Your task to perform on an android device: Go to notification settings Image 0: 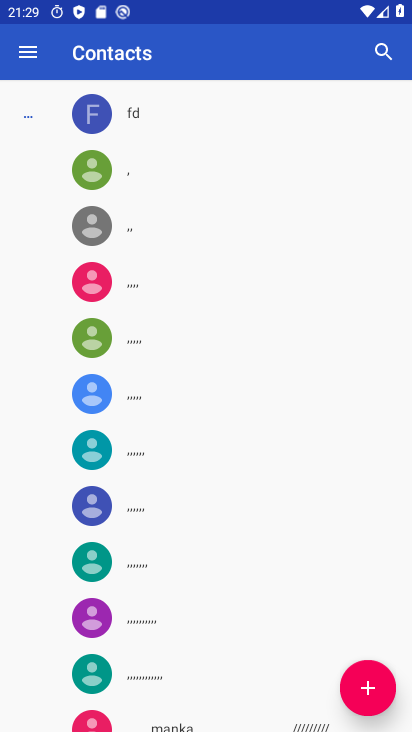
Step 0: press home button
Your task to perform on an android device: Go to notification settings Image 1: 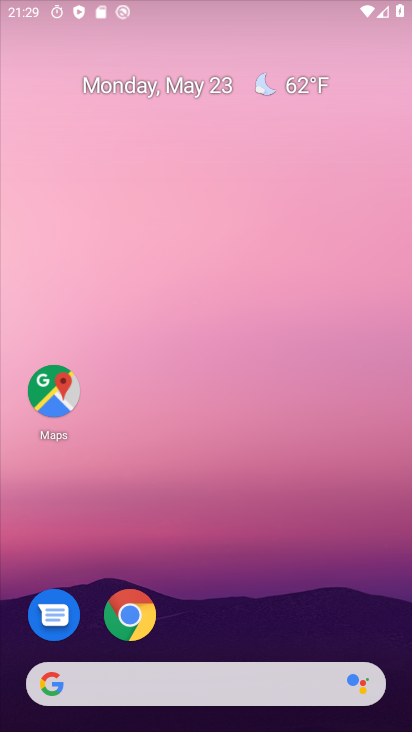
Step 1: drag from (259, 608) to (322, 110)
Your task to perform on an android device: Go to notification settings Image 2: 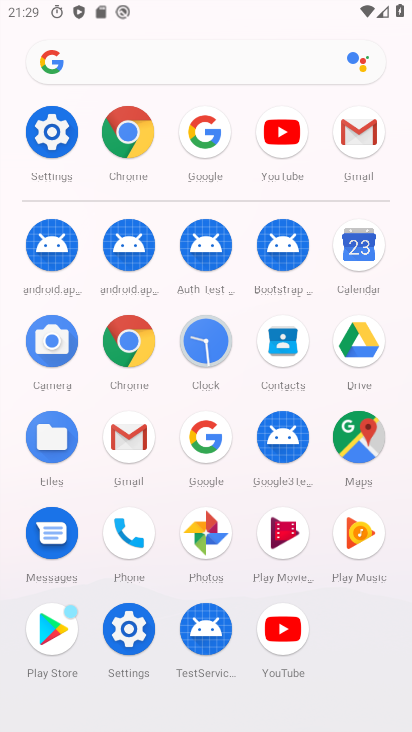
Step 2: click (47, 136)
Your task to perform on an android device: Go to notification settings Image 3: 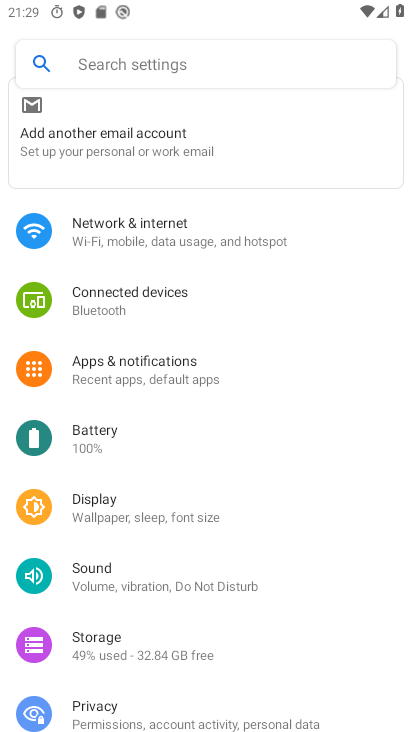
Step 3: click (157, 370)
Your task to perform on an android device: Go to notification settings Image 4: 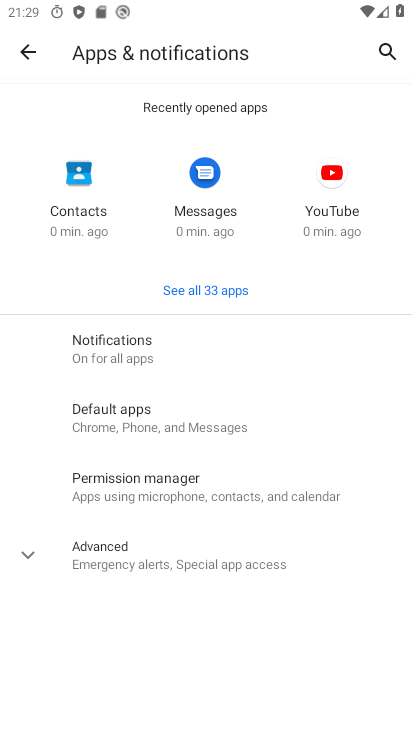
Step 4: click (97, 342)
Your task to perform on an android device: Go to notification settings Image 5: 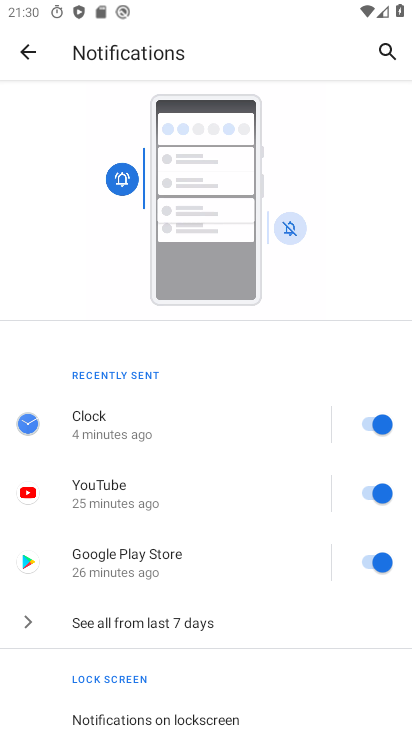
Step 5: task complete